Your task to perform on an android device: See recent photos Image 0: 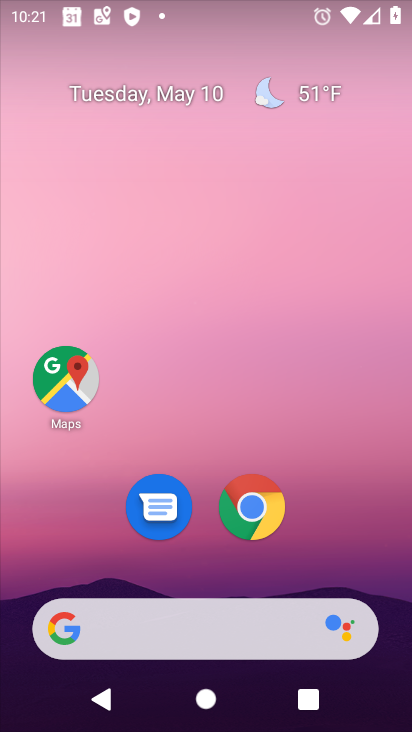
Step 0: drag from (198, 553) to (400, 59)
Your task to perform on an android device: See recent photos Image 1: 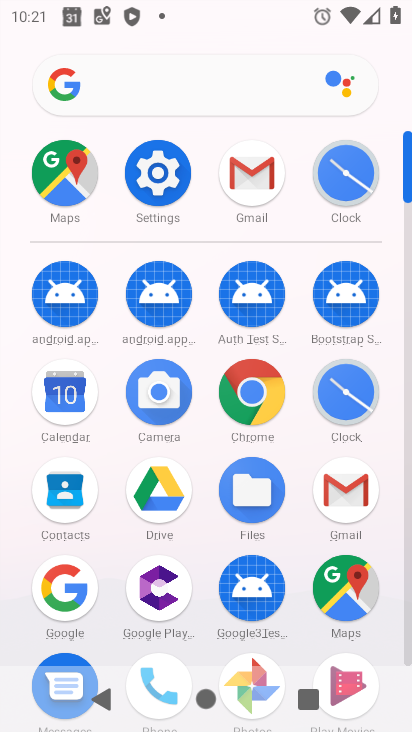
Step 1: drag from (216, 611) to (255, 194)
Your task to perform on an android device: See recent photos Image 2: 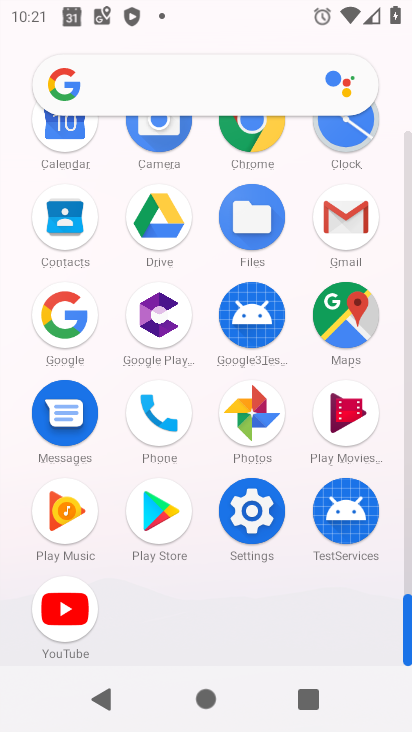
Step 2: click (248, 417)
Your task to perform on an android device: See recent photos Image 3: 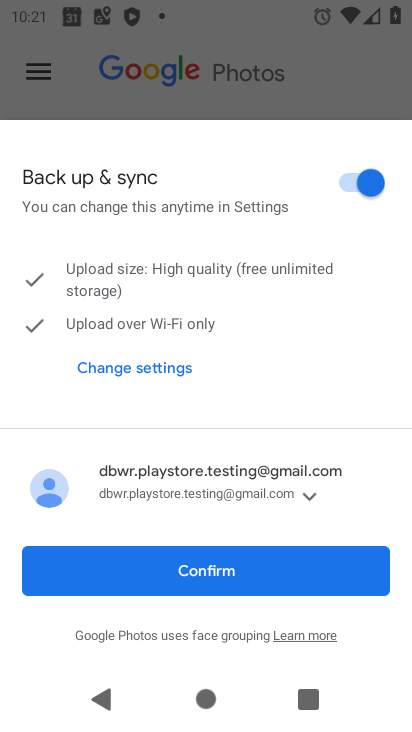
Step 3: click (308, 104)
Your task to perform on an android device: See recent photos Image 4: 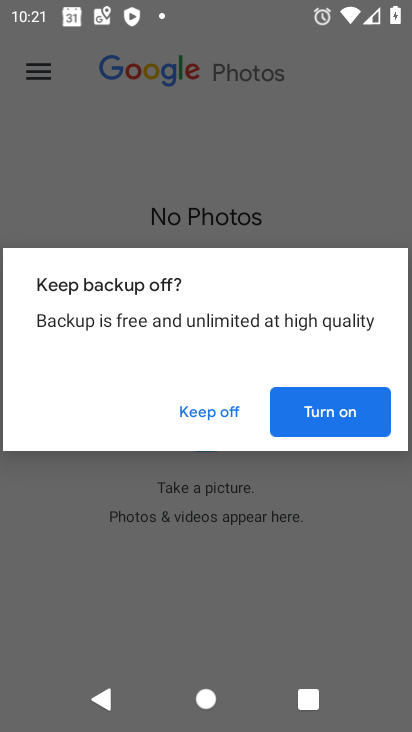
Step 4: click (206, 406)
Your task to perform on an android device: See recent photos Image 5: 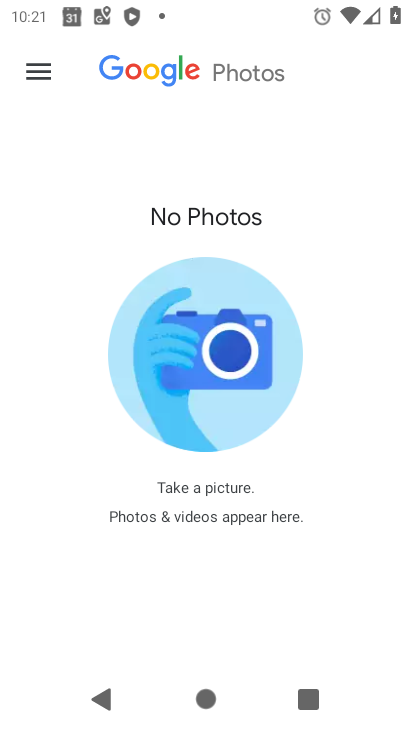
Step 5: task complete